Your task to perform on an android device: read, delete, or share a saved page in the chrome app Image 0: 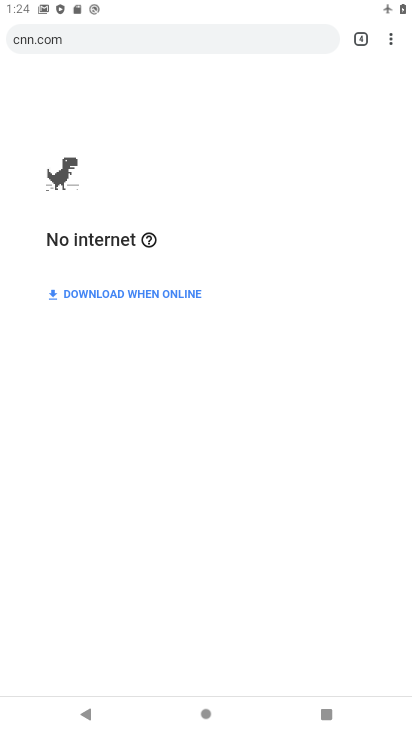
Step 0: click (389, 41)
Your task to perform on an android device: read, delete, or share a saved page in the chrome app Image 1: 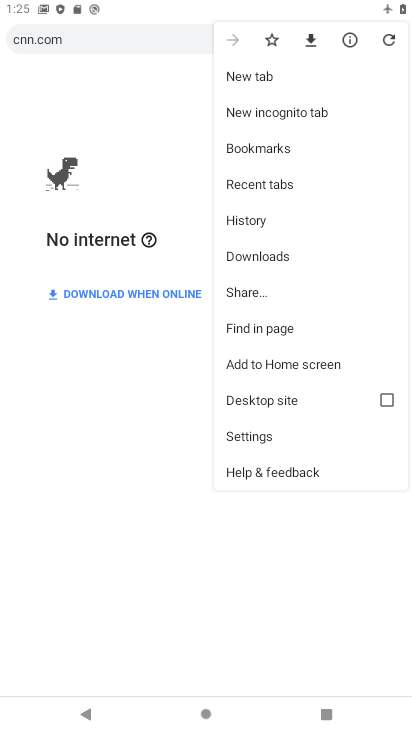
Step 1: click (260, 254)
Your task to perform on an android device: read, delete, or share a saved page in the chrome app Image 2: 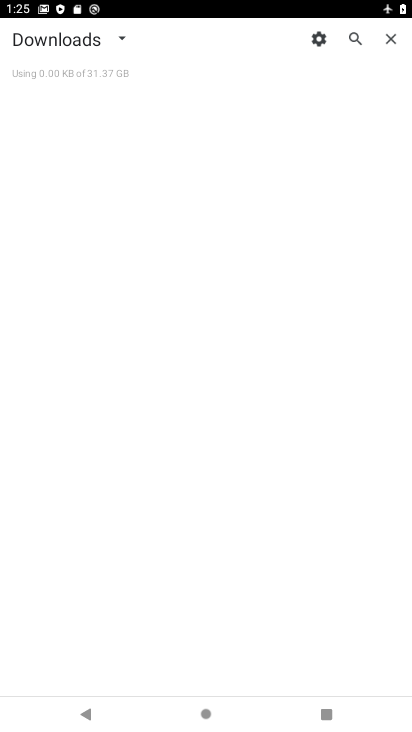
Step 2: task complete